Your task to perform on an android device: When is my next meeting? Image 0: 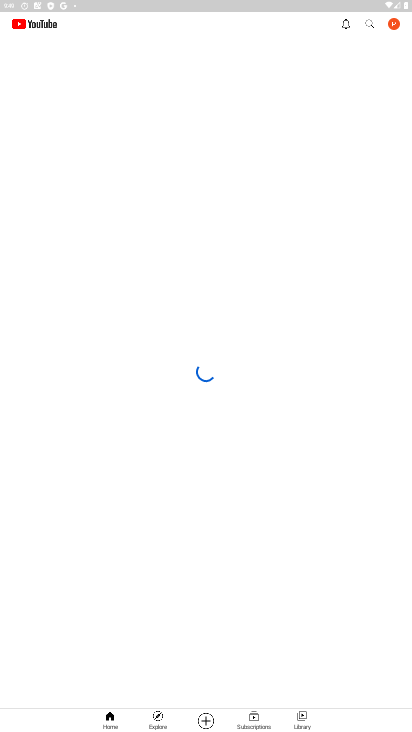
Step 0: drag from (211, 562) to (223, 80)
Your task to perform on an android device: When is my next meeting? Image 1: 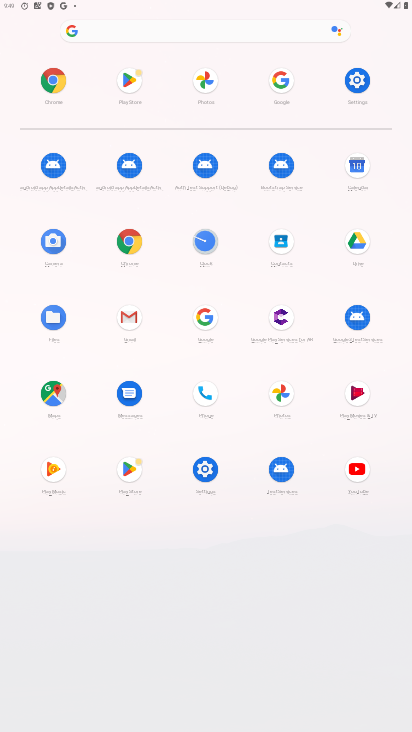
Step 1: click (351, 165)
Your task to perform on an android device: When is my next meeting? Image 2: 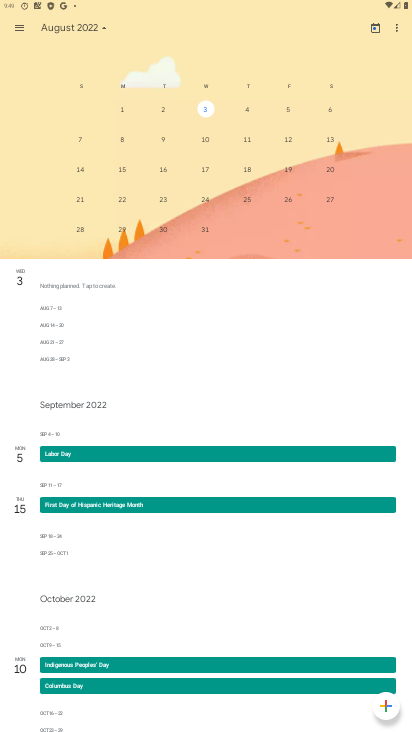
Step 2: click (102, 28)
Your task to perform on an android device: When is my next meeting? Image 3: 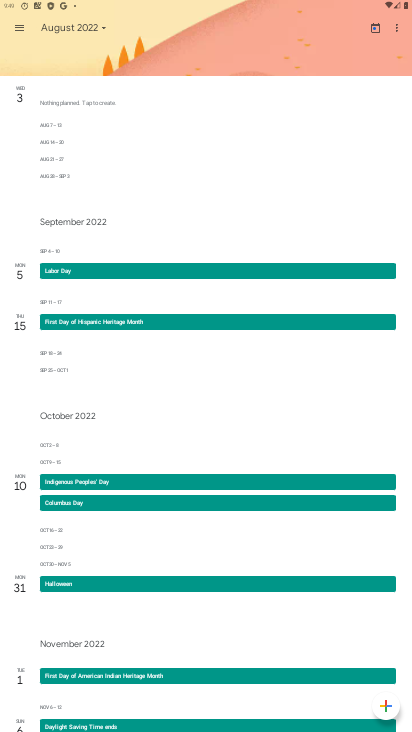
Step 3: click (102, 31)
Your task to perform on an android device: When is my next meeting? Image 4: 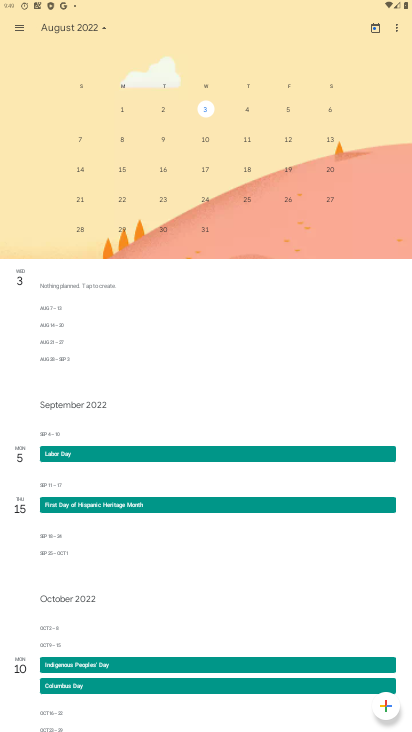
Step 4: click (288, 106)
Your task to perform on an android device: When is my next meeting? Image 5: 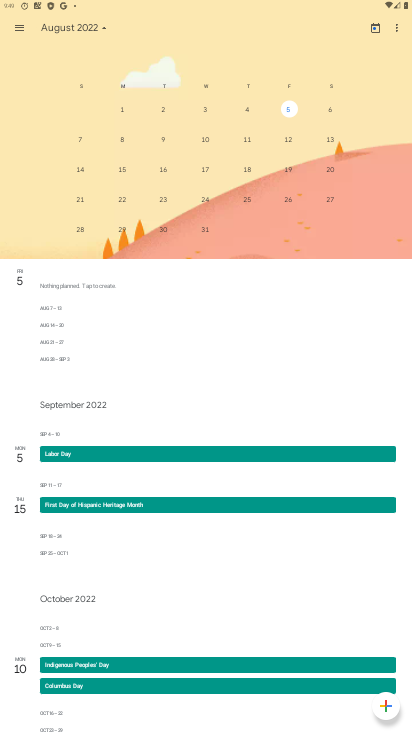
Step 5: task complete